Your task to perform on an android device: check storage Image 0: 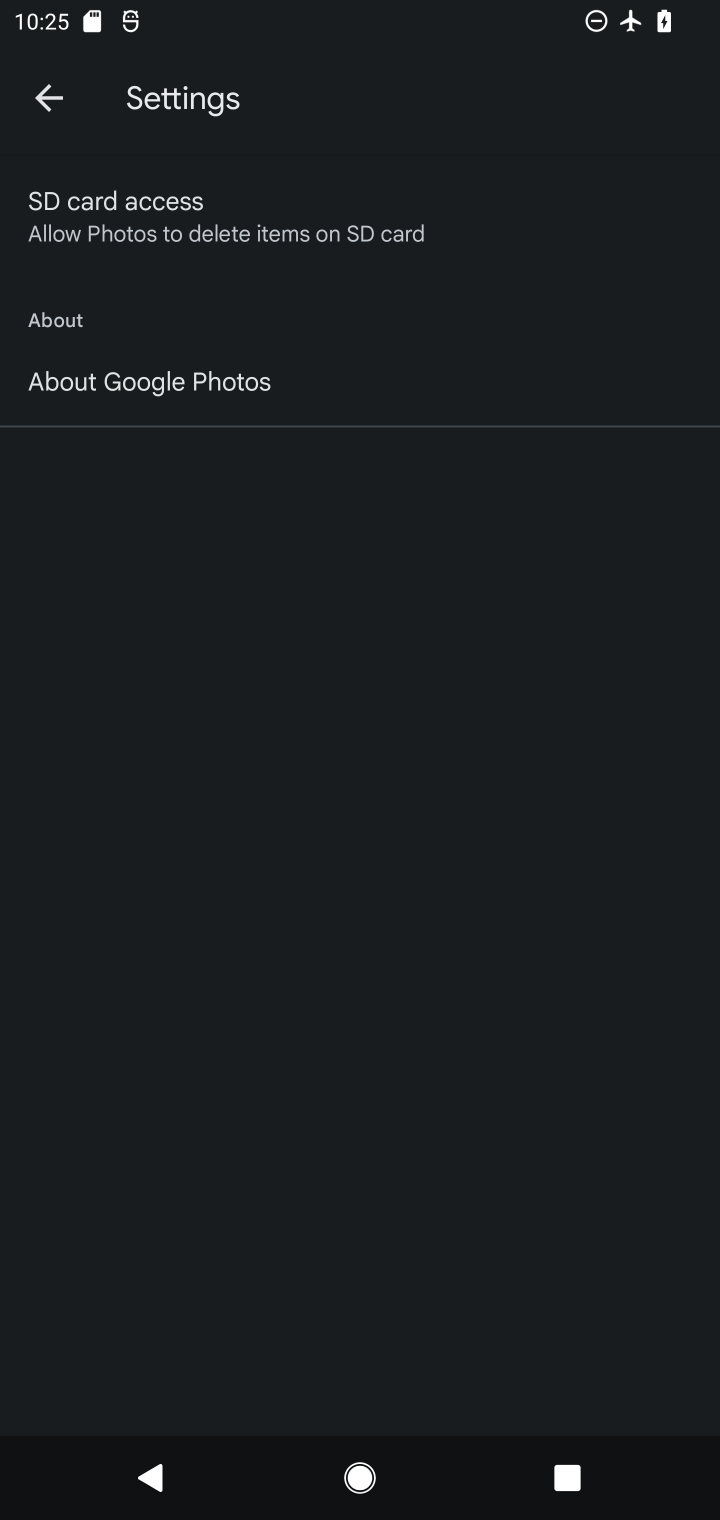
Step 0: press home button
Your task to perform on an android device: check storage Image 1: 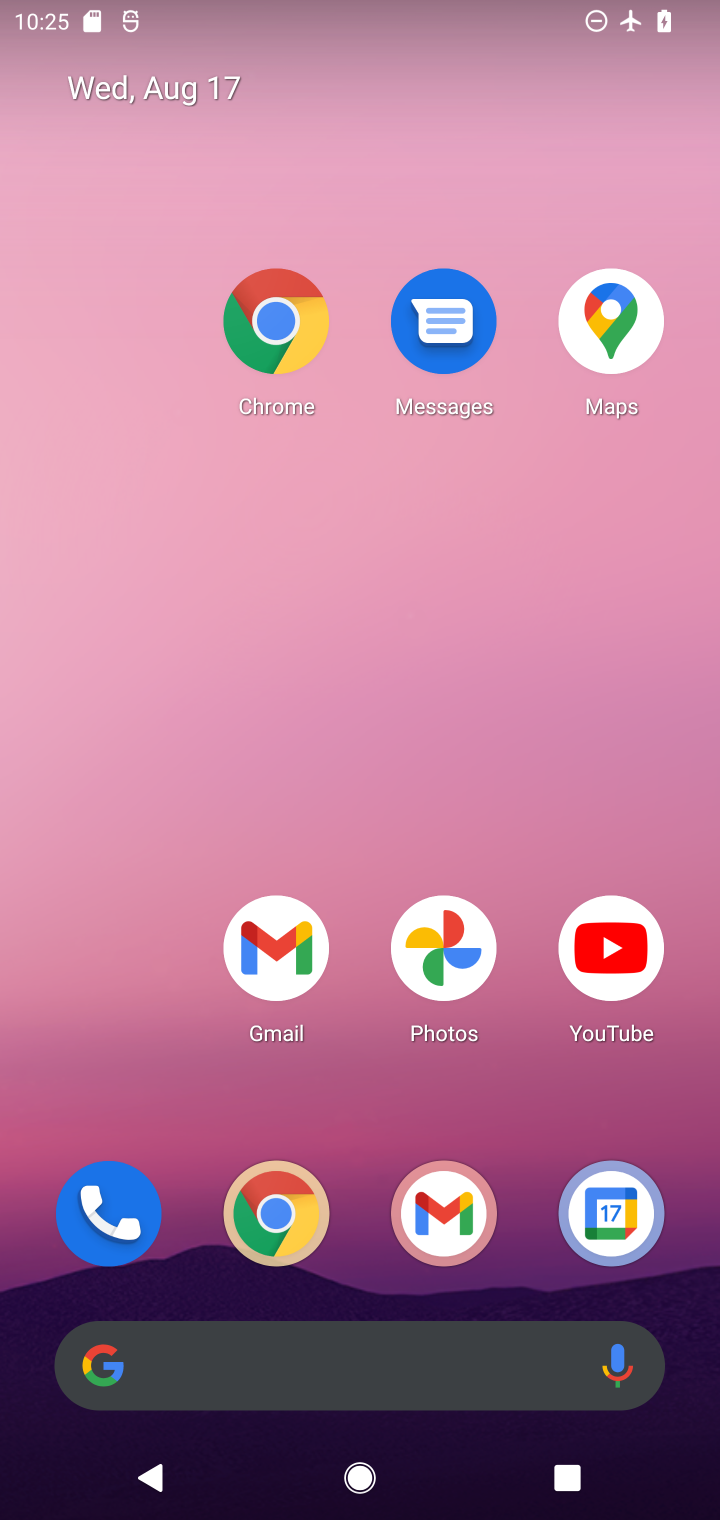
Step 1: drag from (361, 1308) to (303, 305)
Your task to perform on an android device: check storage Image 2: 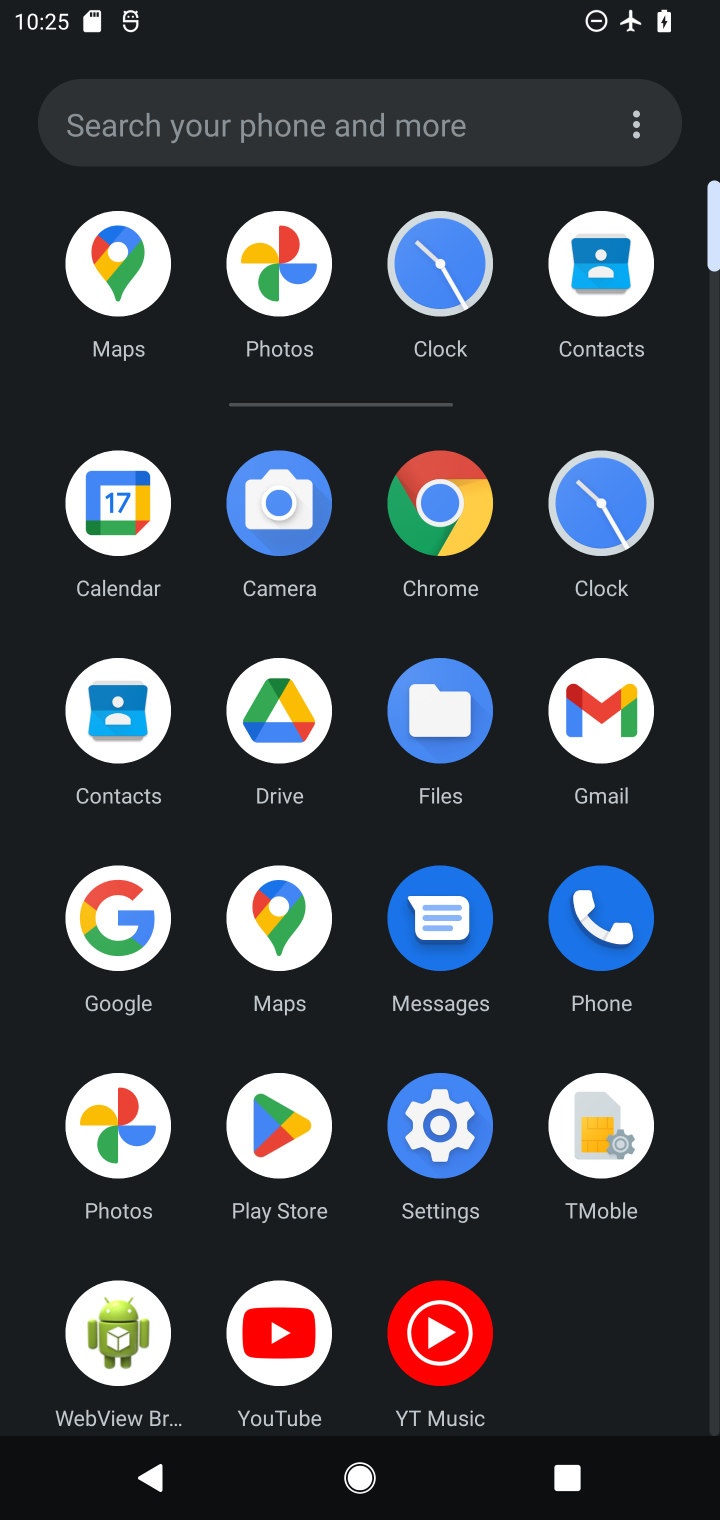
Step 2: click (443, 1087)
Your task to perform on an android device: check storage Image 3: 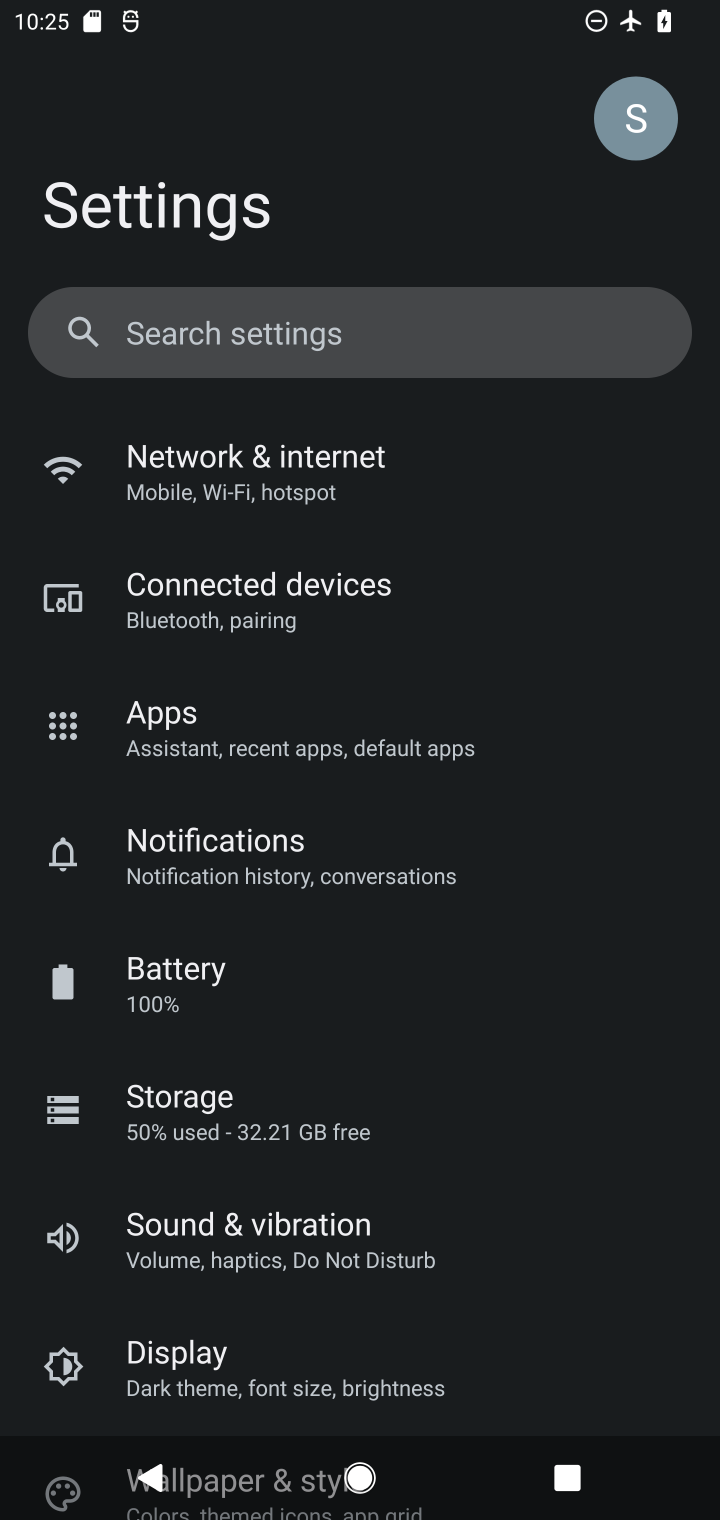
Step 3: click (362, 1149)
Your task to perform on an android device: check storage Image 4: 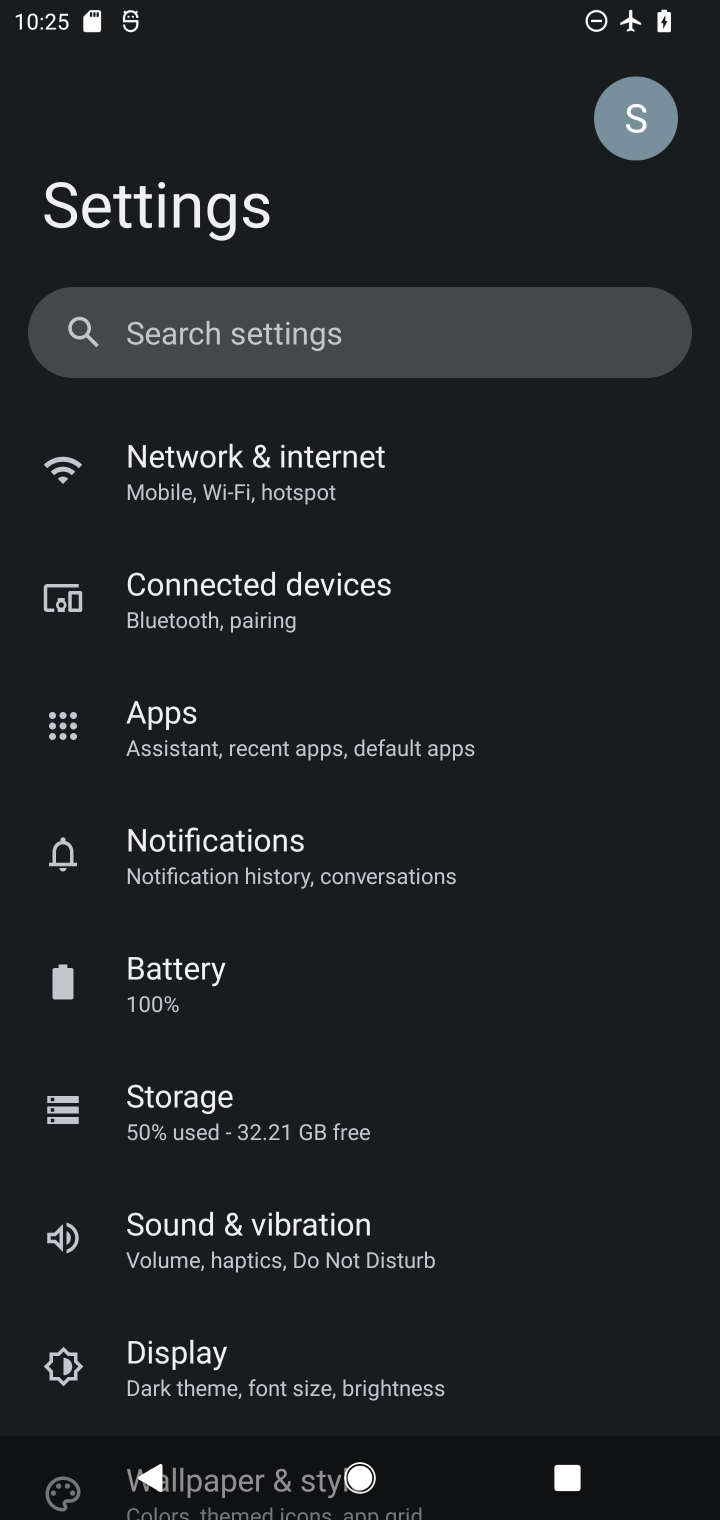
Step 4: task complete